Your task to perform on an android device: turn notification dots on Image 0: 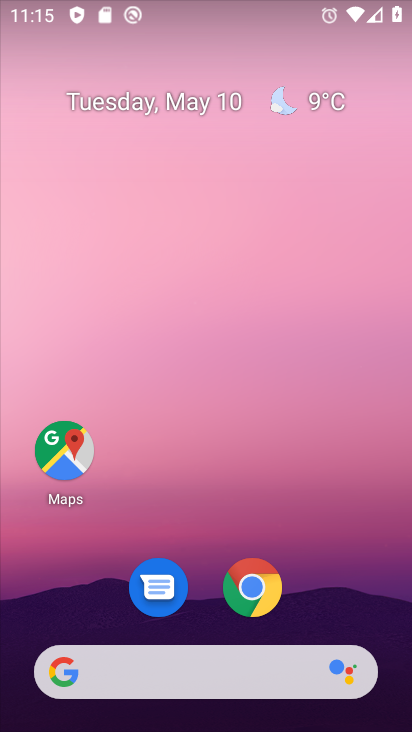
Step 0: drag from (371, 618) to (347, 6)
Your task to perform on an android device: turn notification dots on Image 1: 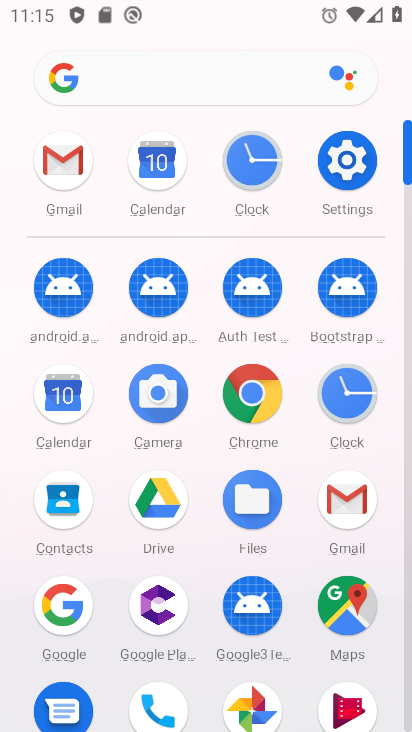
Step 1: click (362, 179)
Your task to perform on an android device: turn notification dots on Image 2: 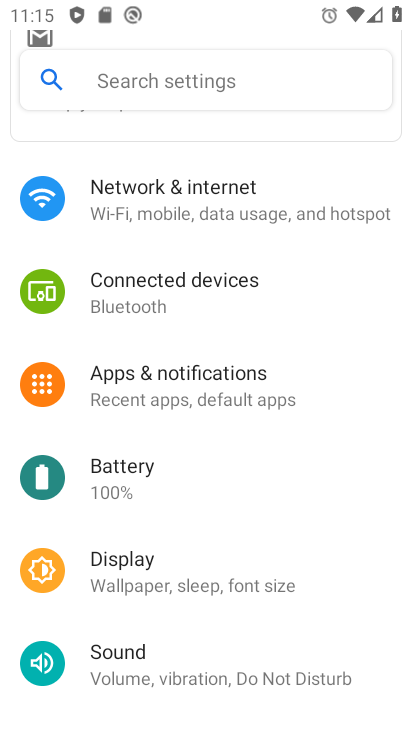
Step 2: click (229, 401)
Your task to perform on an android device: turn notification dots on Image 3: 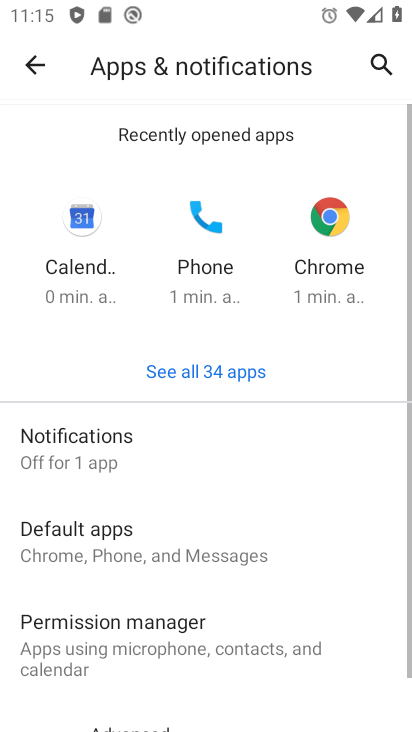
Step 3: click (95, 471)
Your task to perform on an android device: turn notification dots on Image 4: 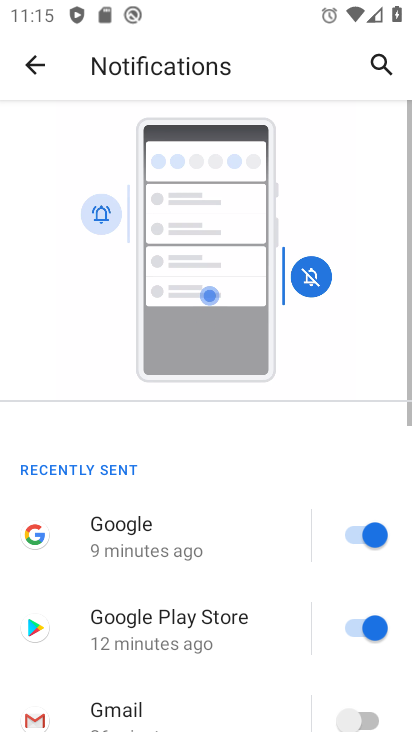
Step 4: drag from (197, 585) to (190, 181)
Your task to perform on an android device: turn notification dots on Image 5: 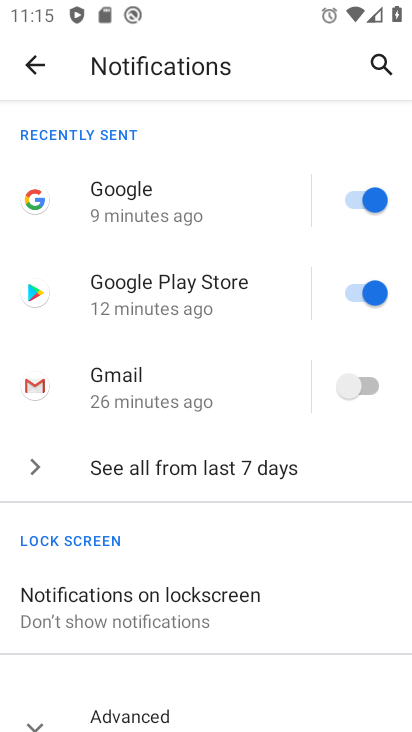
Step 5: drag from (125, 568) to (136, 177)
Your task to perform on an android device: turn notification dots on Image 6: 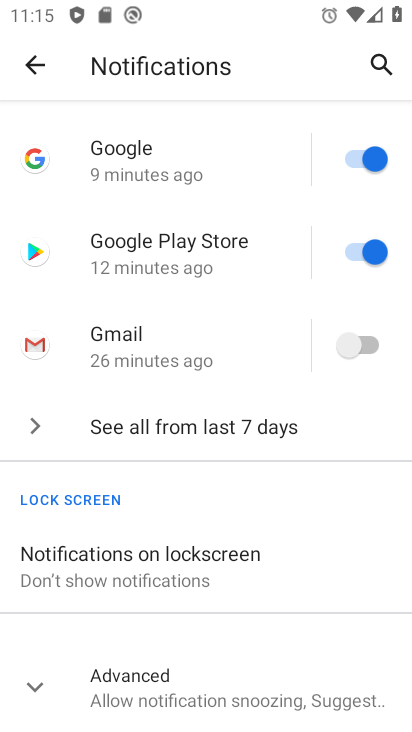
Step 6: click (34, 692)
Your task to perform on an android device: turn notification dots on Image 7: 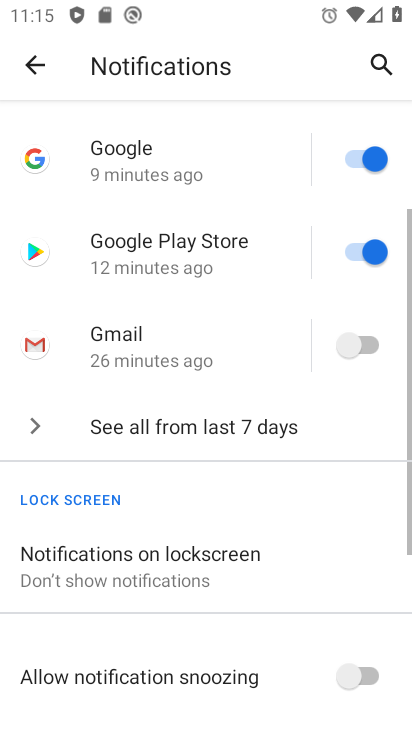
Step 7: task complete